Your task to perform on an android device: Go to accessibility settings Image 0: 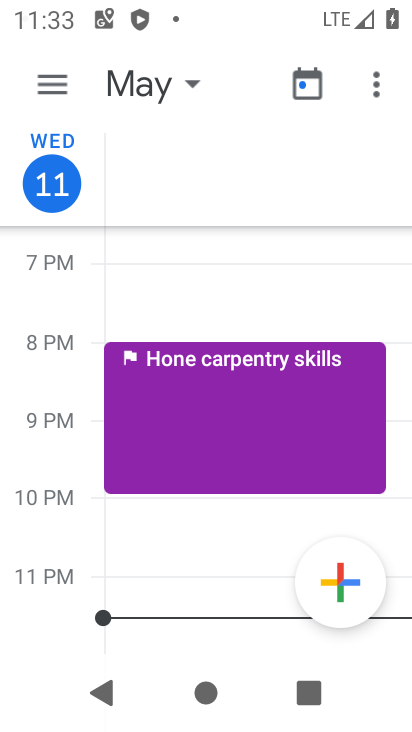
Step 0: press home button
Your task to perform on an android device: Go to accessibility settings Image 1: 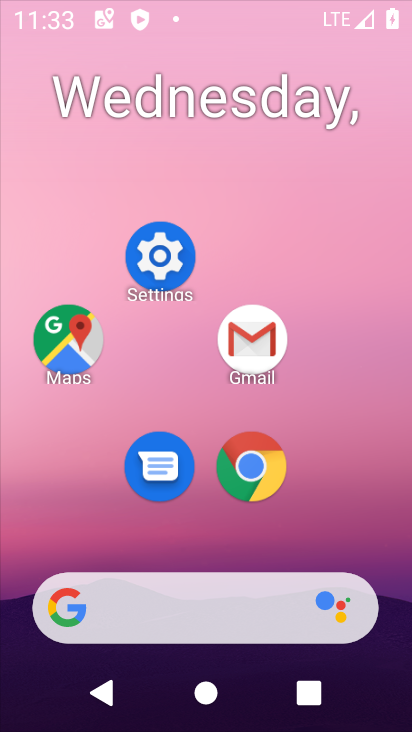
Step 1: drag from (245, 603) to (347, 80)
Your task to perform on an android device: Go to accessibility settings Image 2: 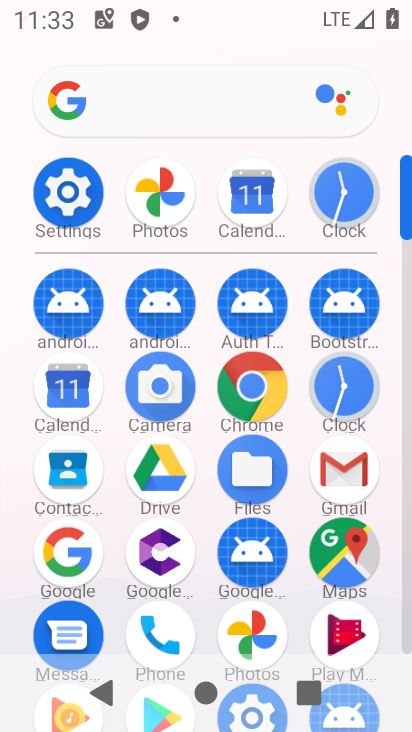
Step 2: click (71, 201)
Your task to perform on an android device: Go to accessibility settings Image 3: 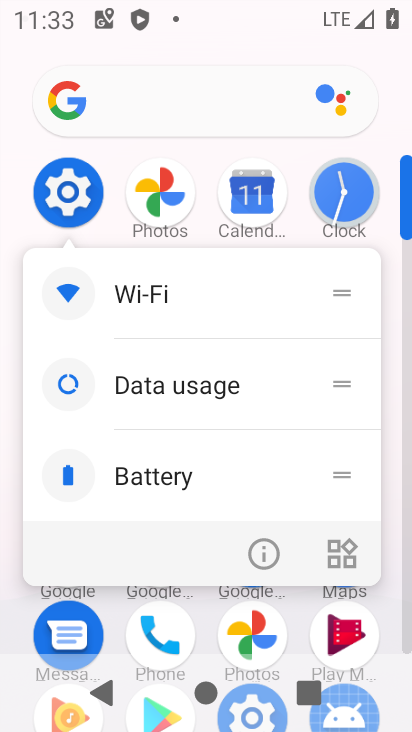
Step 3: click (268, 546)
Your task to perform on an android device: Go to accessibility settings Image 4: 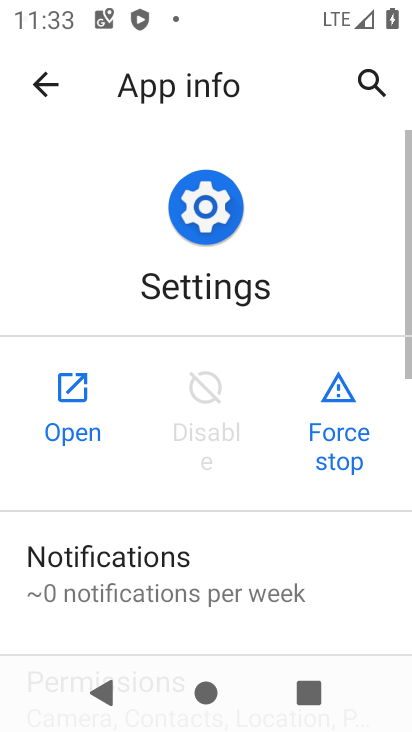
Step 4: click (45, 373)
Your task to perform on an android device: Go to accessibility settings Image 5: 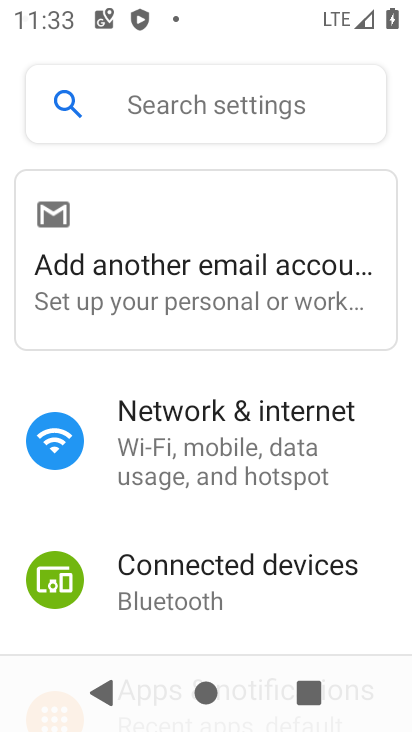
Step 5: drag from (251, 578) to (393, 17)
Your task to perform on an android device: Go to accessibility settings Image 6: 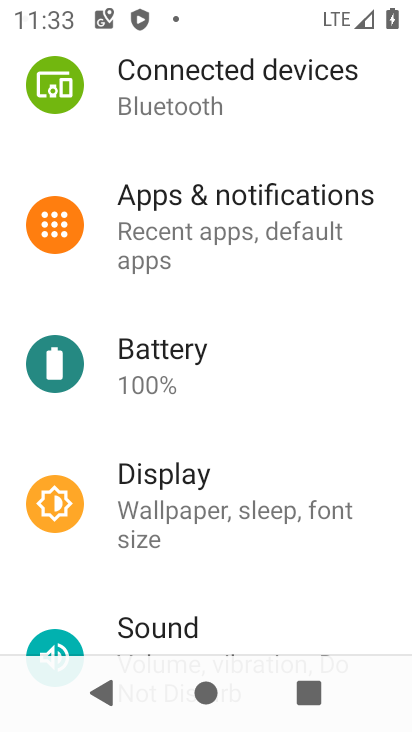
Step 6: drag from (304, 555) to (310, 18)
Your task to perform on an android device: Go to accessibility settings Image 7: 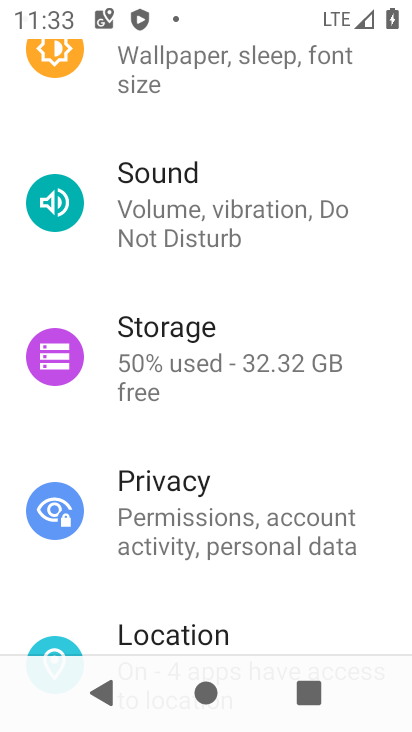
Step 7: drag from (230, 559) to (319, 71)
Your task to perform on an android device: Go to accessibility settings Image 8: 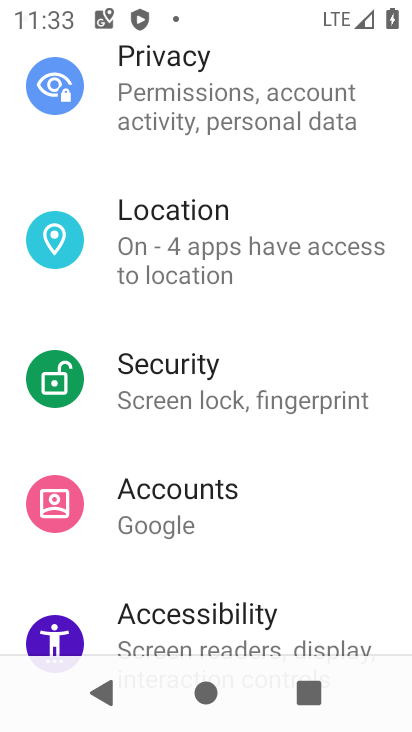
Step 8: click (232, 605)
Your task to perform on an android device: Go to accessibility settings Image 9: 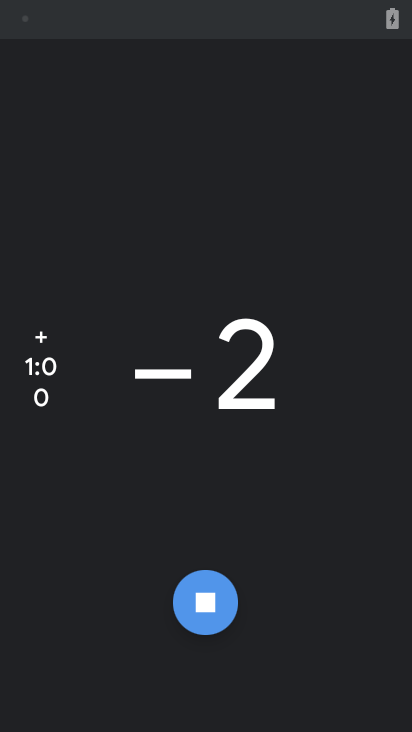
Step 9: click (317, 495)
Your task to perform on an android device: Go to accessibility settings Image 10: 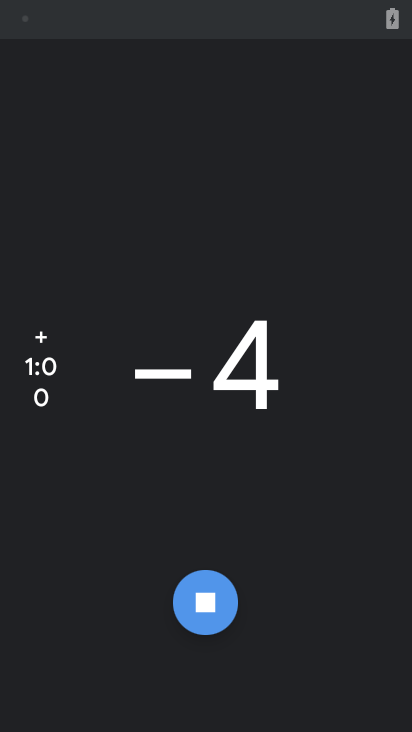
Step 10: click (209, 596)
Your task to perform on an android device: Go to accessibility settings Image 11: 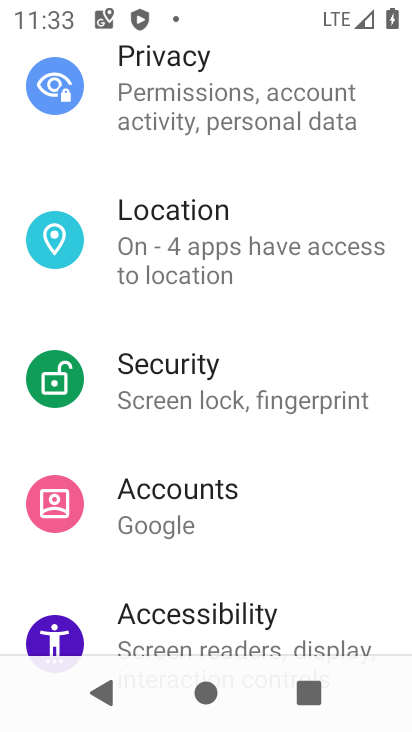
Step 11: click (206, 602)
Your task to perform on an android device: Go to accessibility settings Image 12: 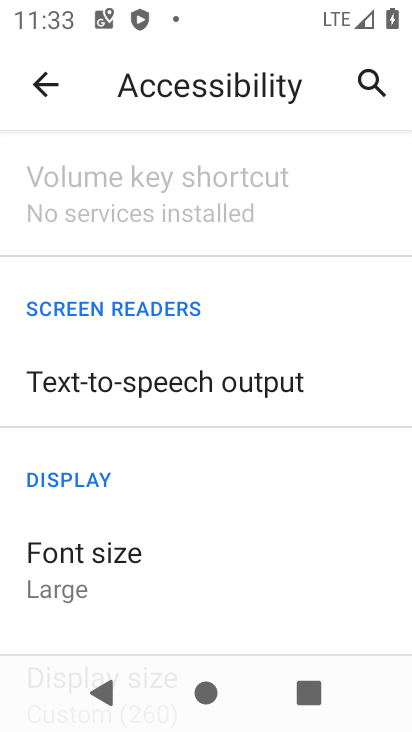
Step 12: task complete